Your task to perform on an android device: change the upload size in google photos Image 0: 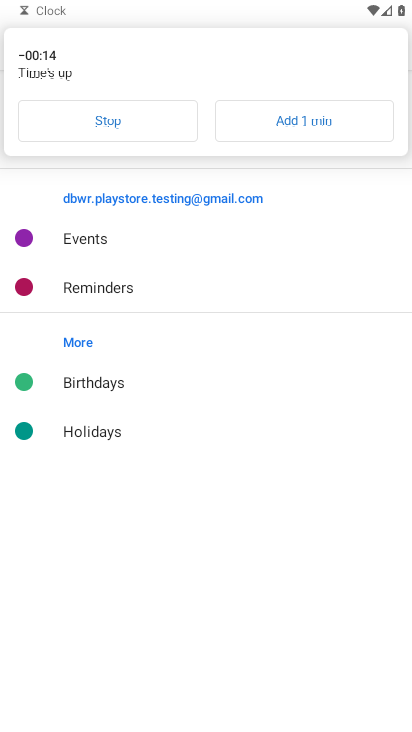
Step 0: press home button
Your task to perform on an android device: change the upload size in google photos Image 1: 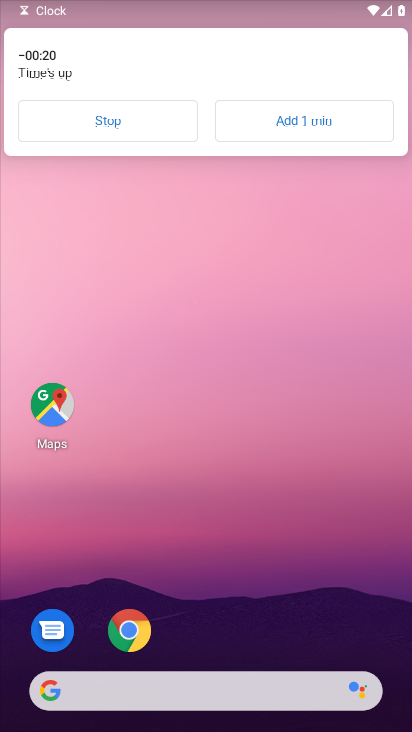
Step 1: drag from (133, 592) to (74, 21)
Your task to perform on an android device: change the upload size in google photos Image 2: 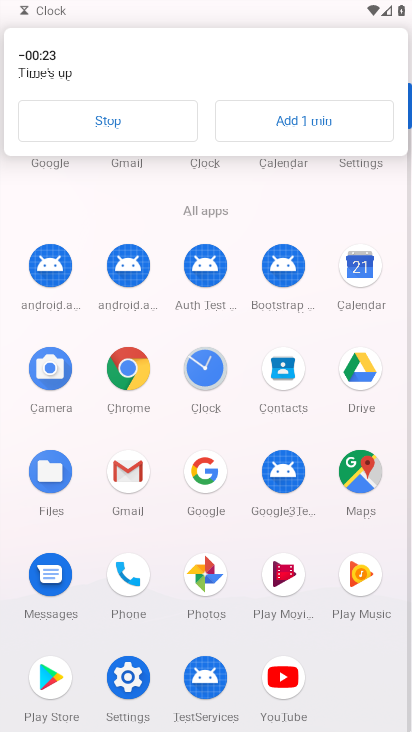
Step 2: click (146, 110)
Your task to perform on an android device: change the upload size in google photos Image 3: 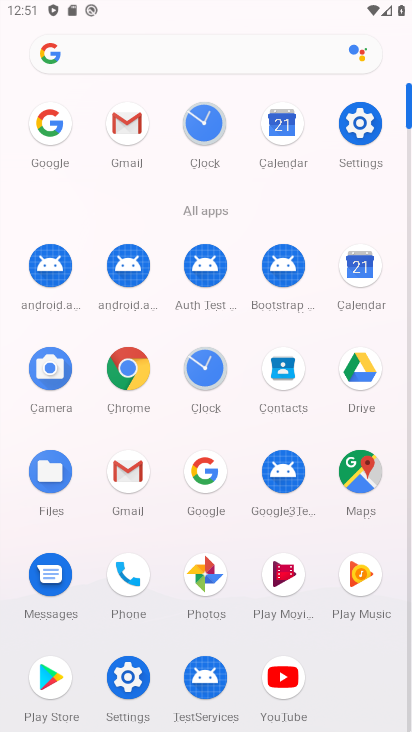
Step 3: click (210, 572)
Your task to perform on an android device: change the upload size in google photos Image 4: 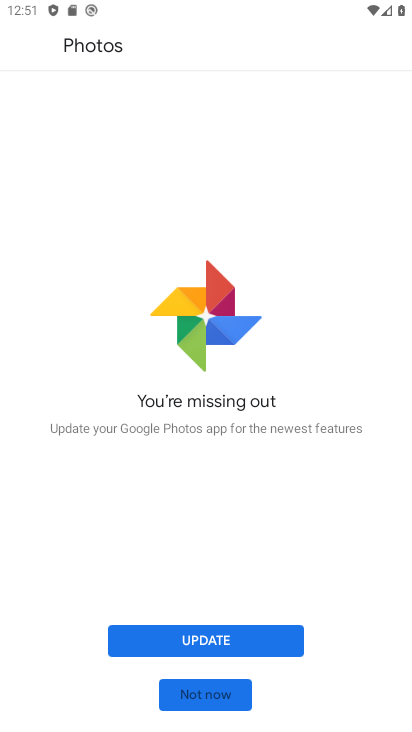
Step 4: click (201, 706)
Your task to perform on an android device: change the upload size in google photos Image 5: 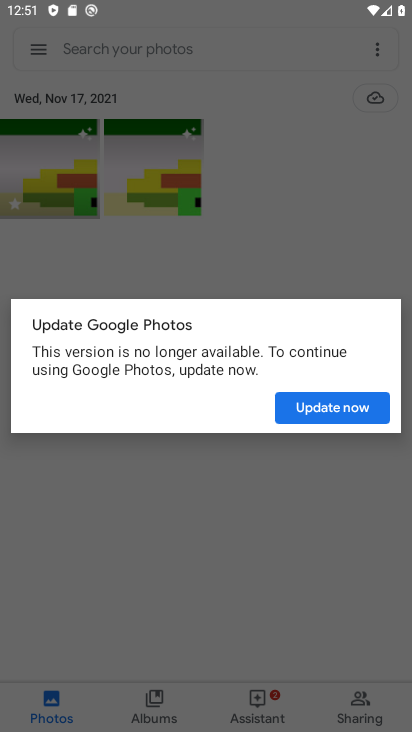
Step 5: click (328, 414)
Your task to perform on an android device: change the upload size in google photos Image 6: 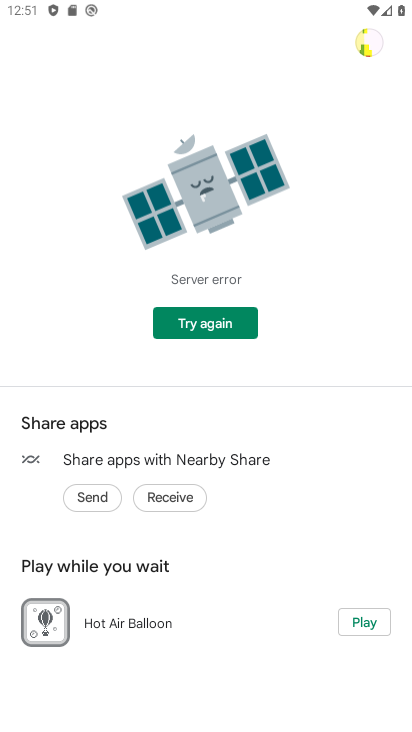
Step 6: task complete